Your task to perform on an android device: Go to Amazon Image 0: 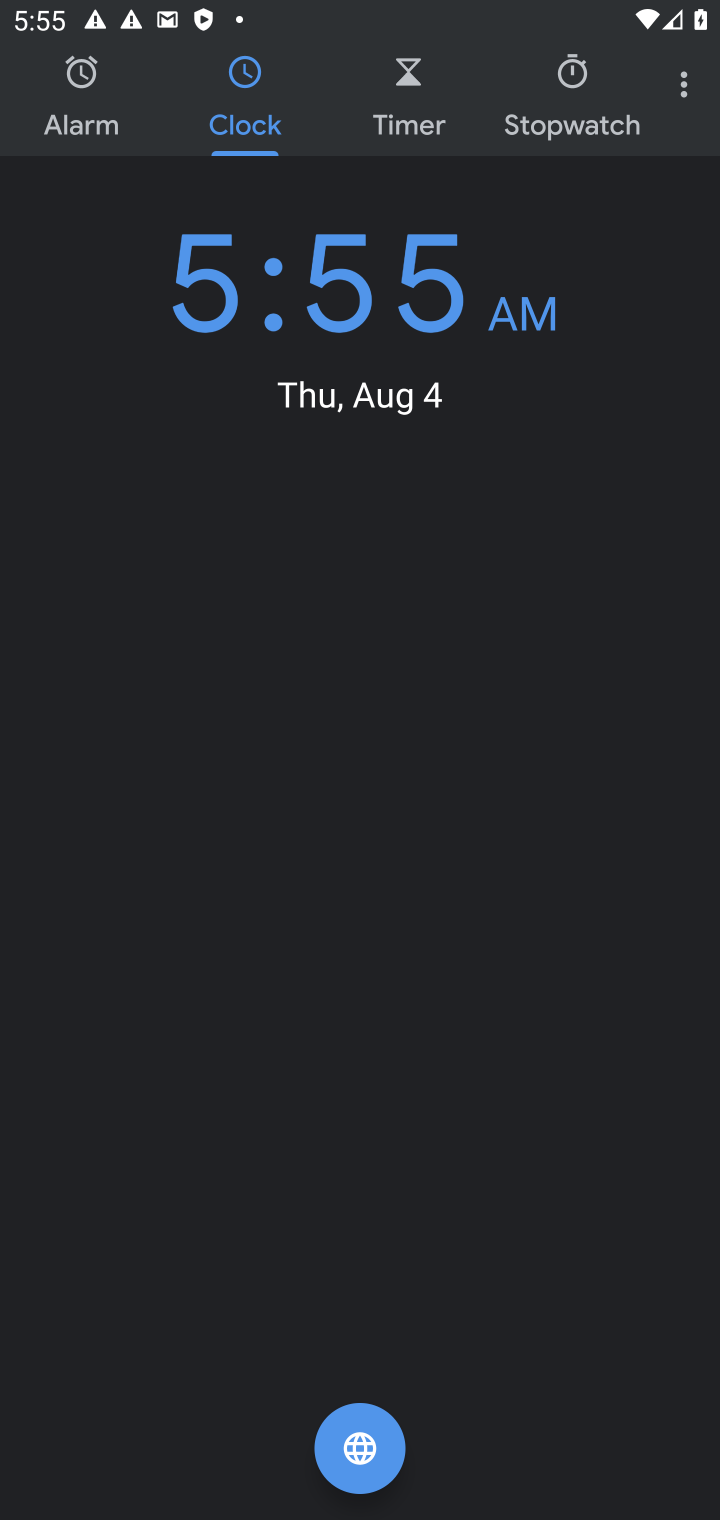
Step 0: press back button
Your task to perform on an android device: Go to Amazon Image 1: 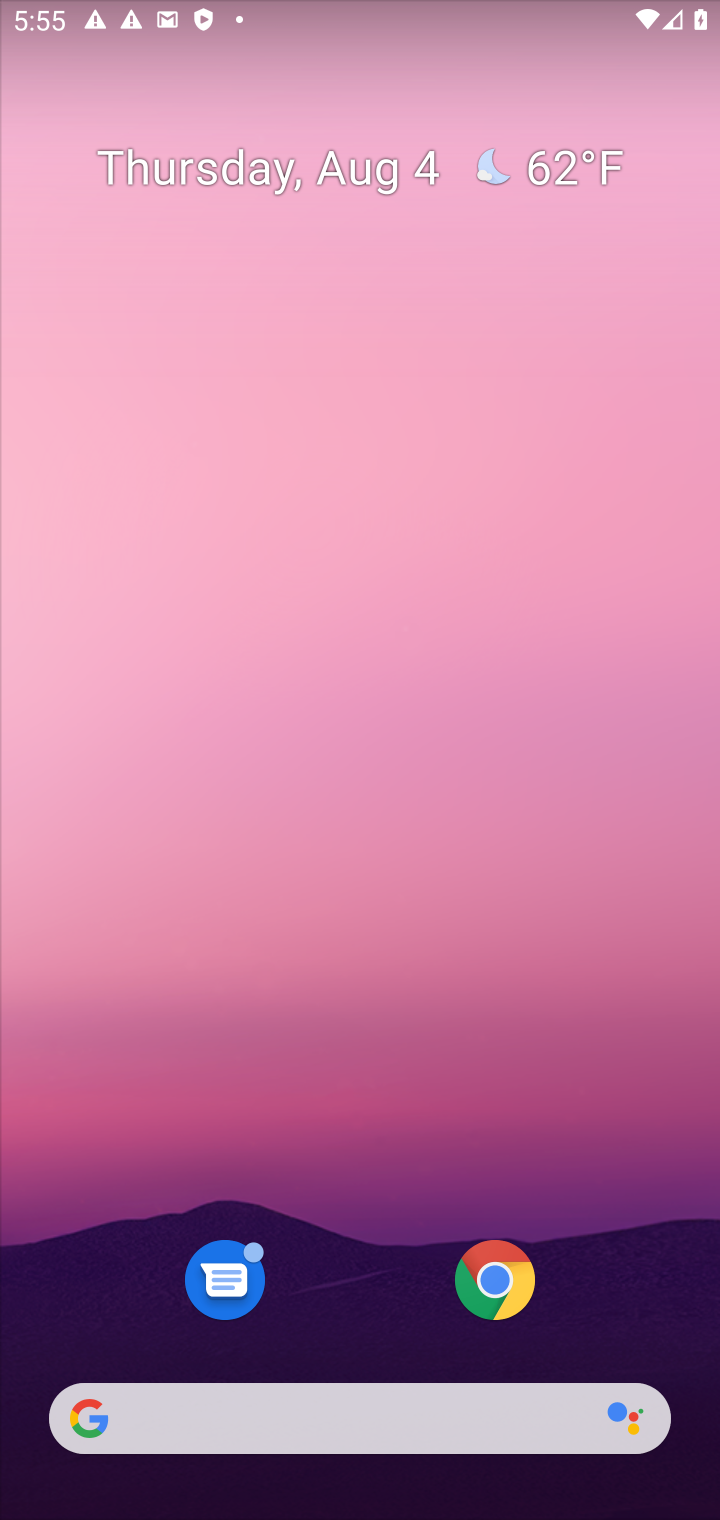
Step 1: click (509, 1284)
Your task to perform on an android device: Go to Amazon Image 2: 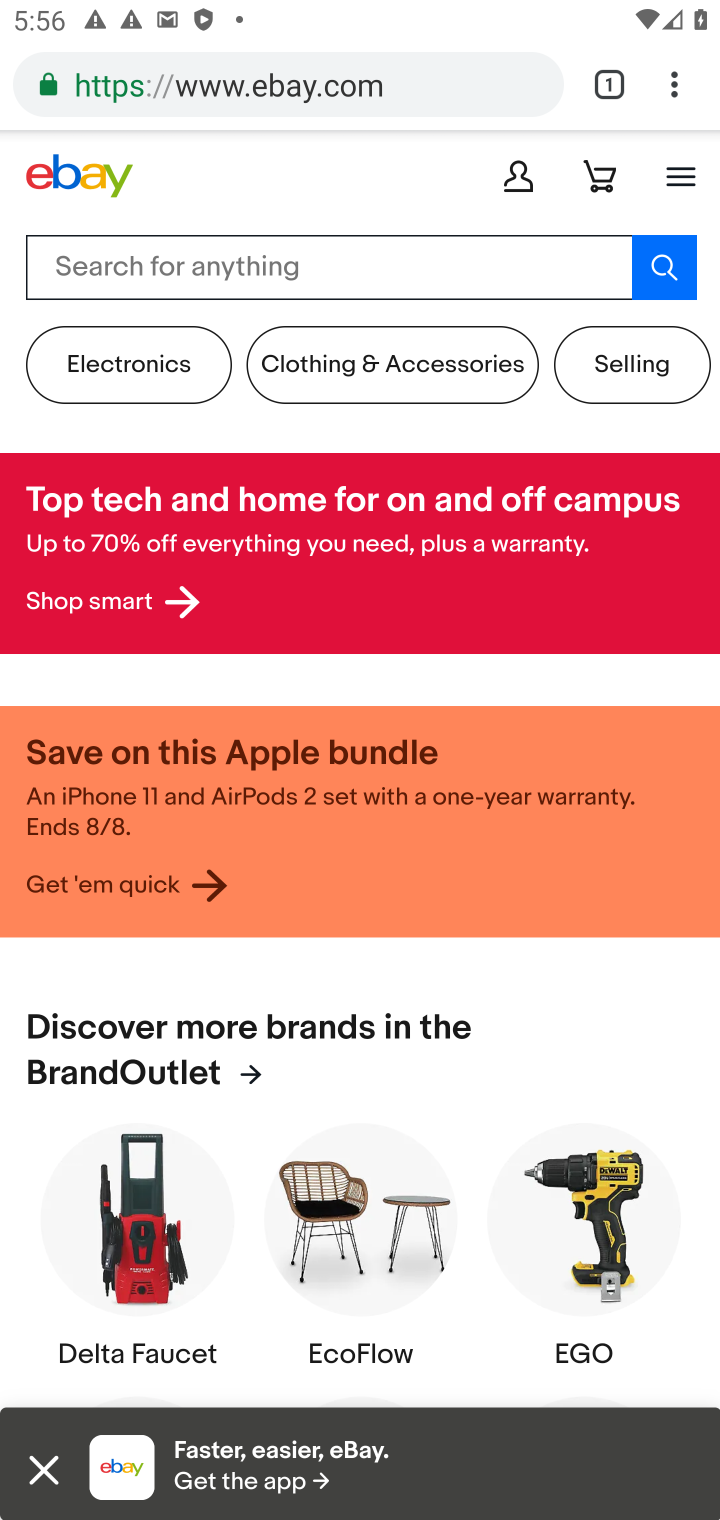
Step 2: press back button
Your task to perform on an android device: Go to Amazon Image 3: 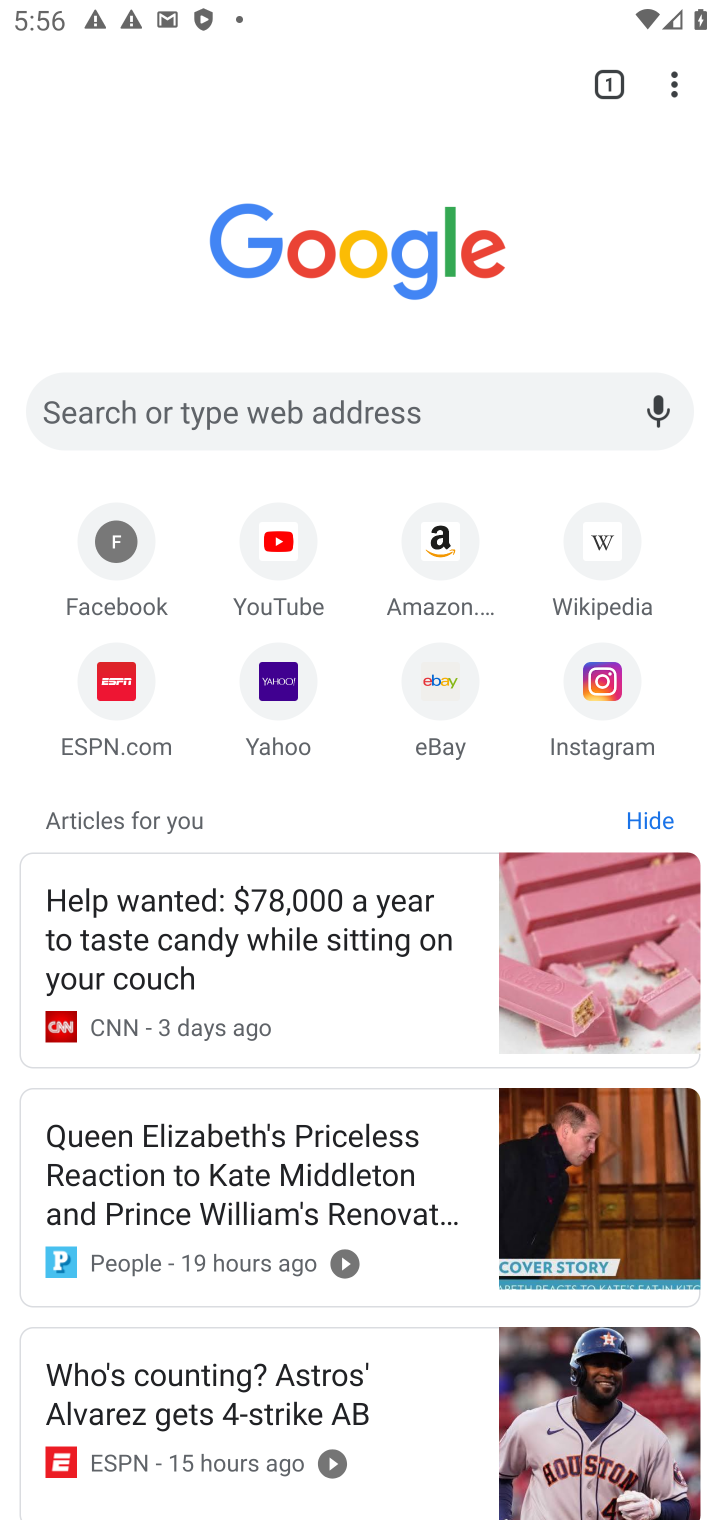
Step 3: click (435, 572)
Your task to perform on an android device: Go to Amazon Image 4: 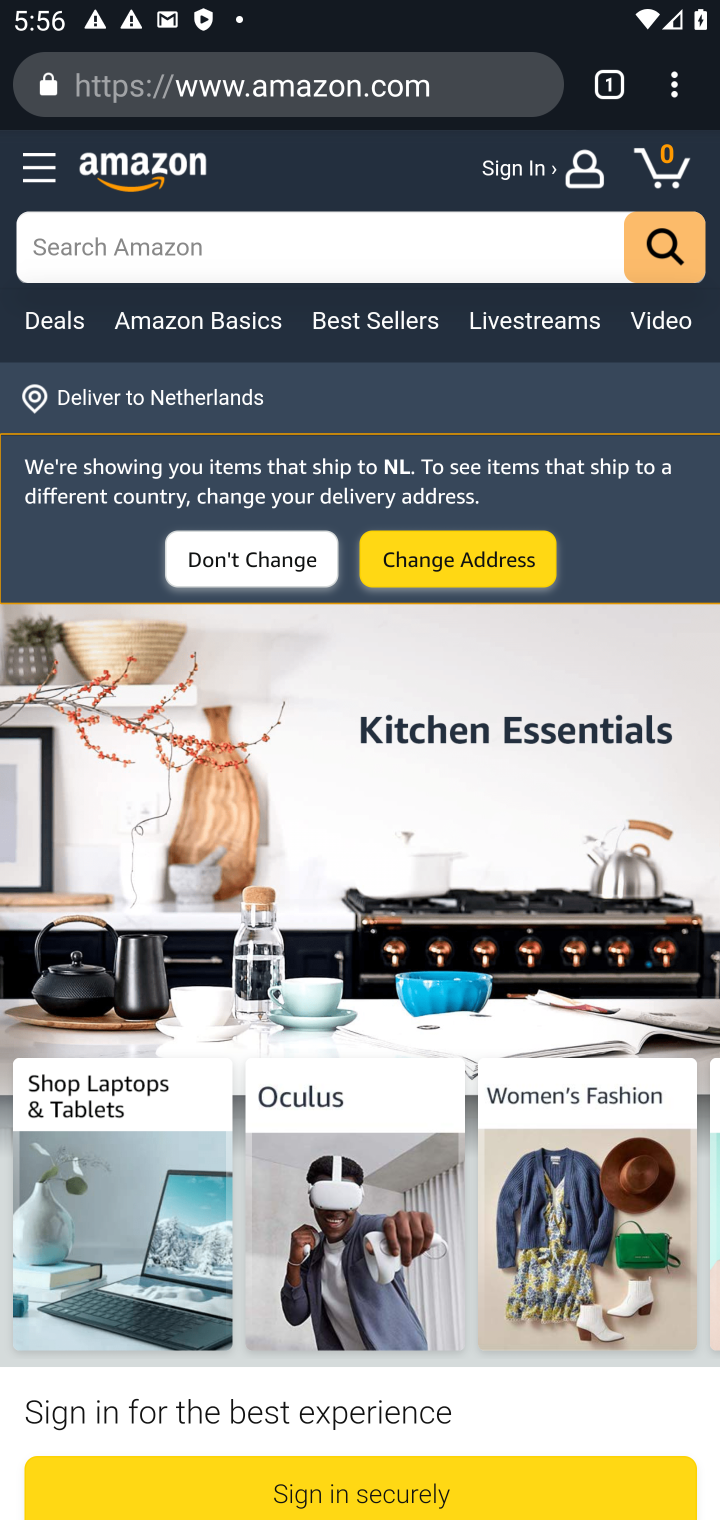
Step 4: task complete